Your task to perform on an android device: Open Chrome and go to the settings page Image 0: 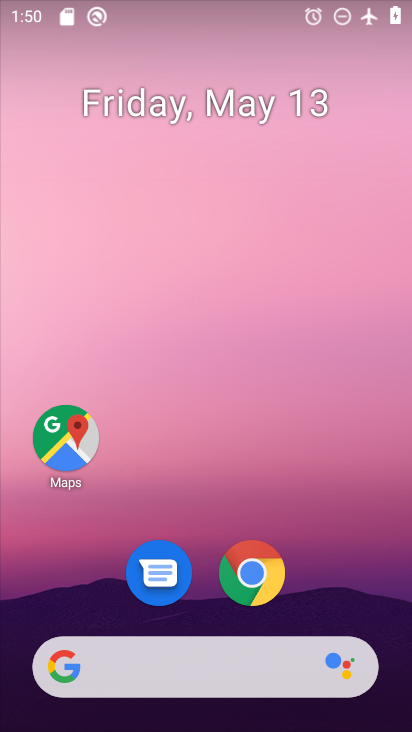
Step 0: click (256, 568)
Your task to perform on an android device: Open Chrome and go to the settings page Image 1: 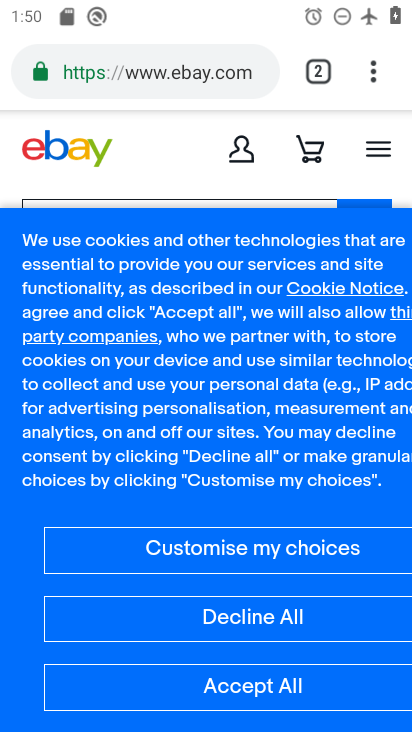
Step 1: click (376, 72)
Your task to perform on an android device: Open Chrome and go to the settings page Image 2: 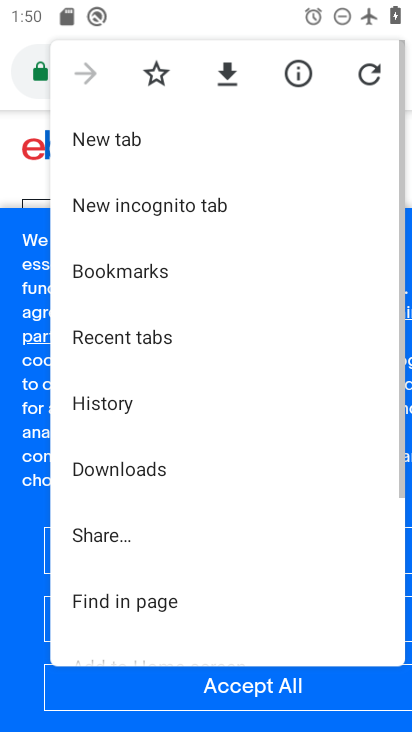
Step 2: drag from (222, 601) to (218, 55)
Your task to perform on an android device: Open Chrome and go to the settings page Image 3: 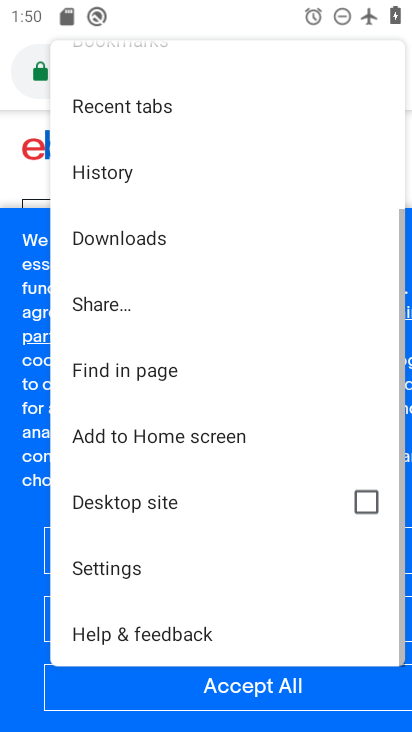
Step 3: click (117, 573)
Your task to perform on an android device: Open Chrome and go to the settings page Image 4: 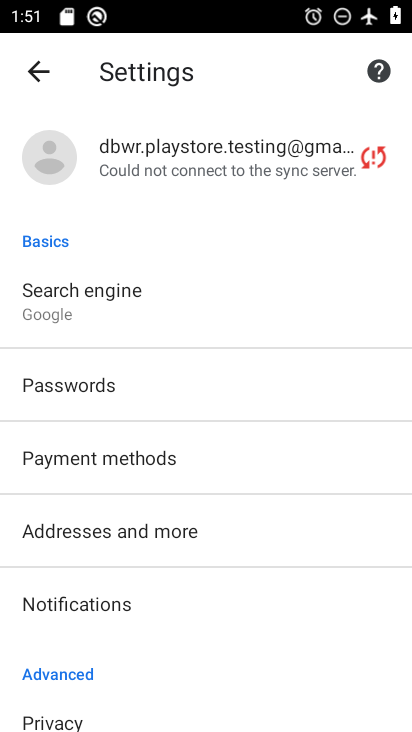
Step 4: task complete